Your task to perform on an android device: What is the recent news? Image 0: 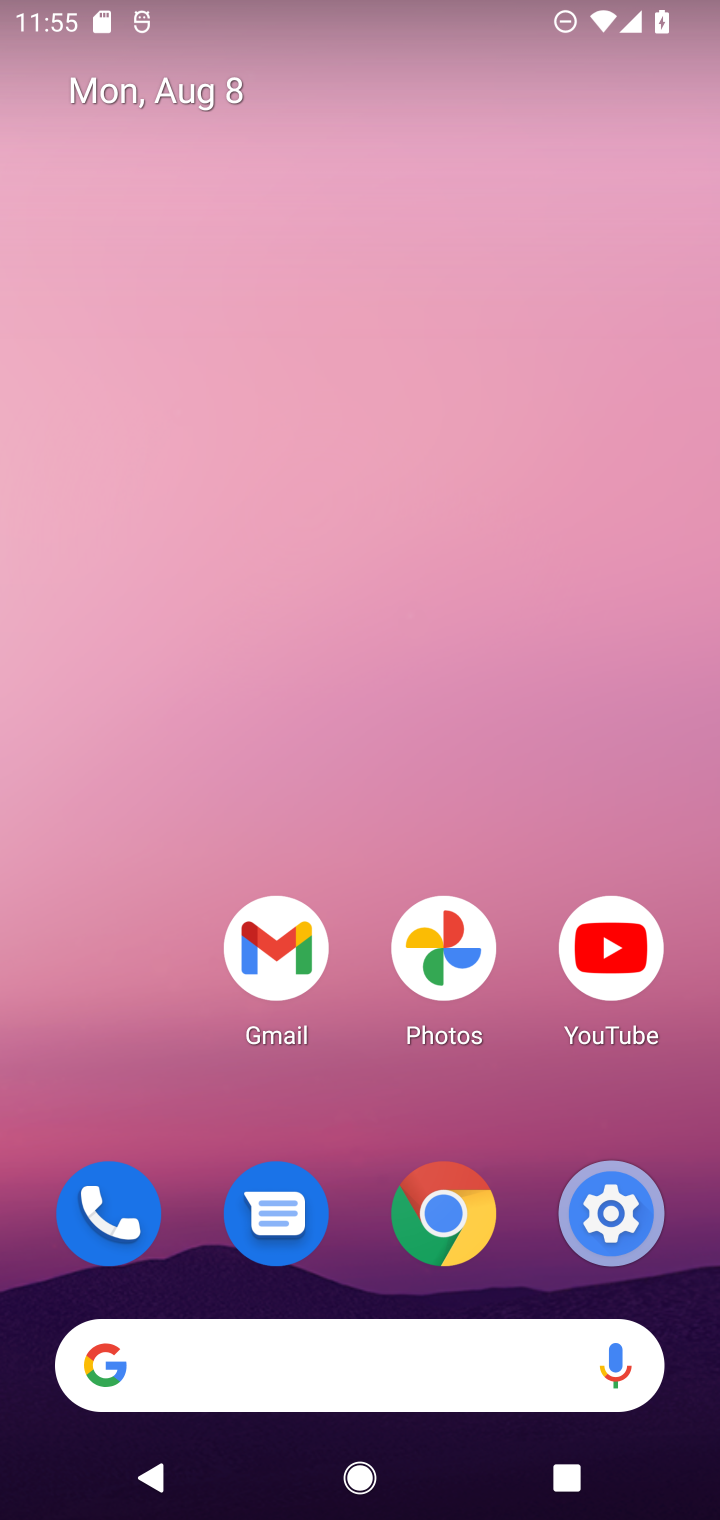
Step 0: press home button
Your task to perform on an android device: What is the recent news? Image 1: 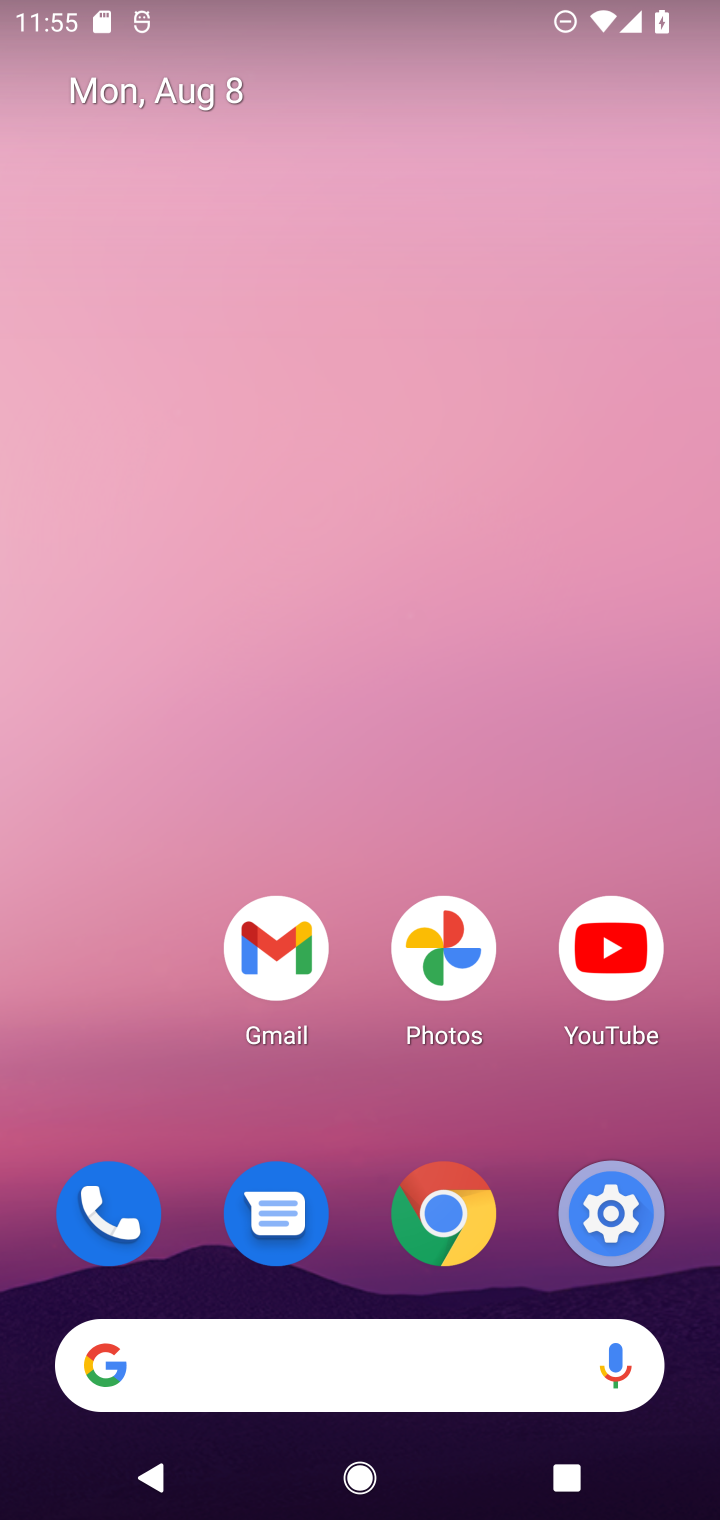
Step 1: task complete